Your task to perform on an android device: open wifi settings Image 0: 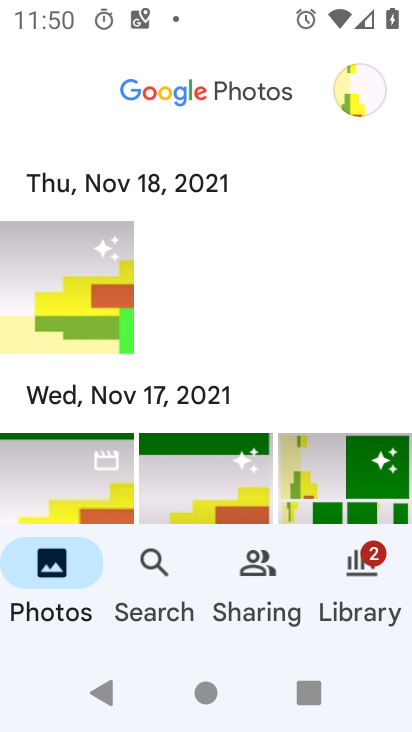
Step 0: press home button
Your task to perform on an android device: open wifi settings Image 1: 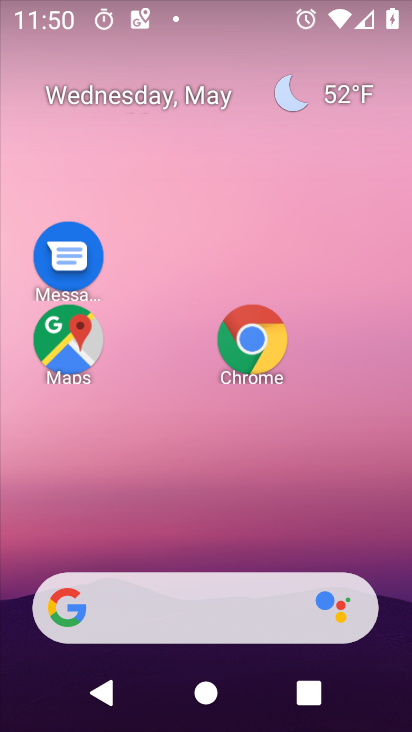
Step 1: drag from (188, 533) to (196, 57)
Your task to perform on an android device: open wifi settings Image 2: 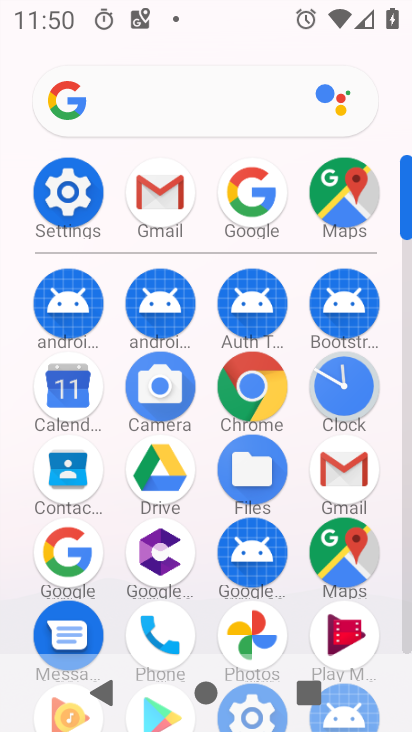
Step 2: click (73, 195)
Your task to perform on an android device: open wifi settings Image 3: 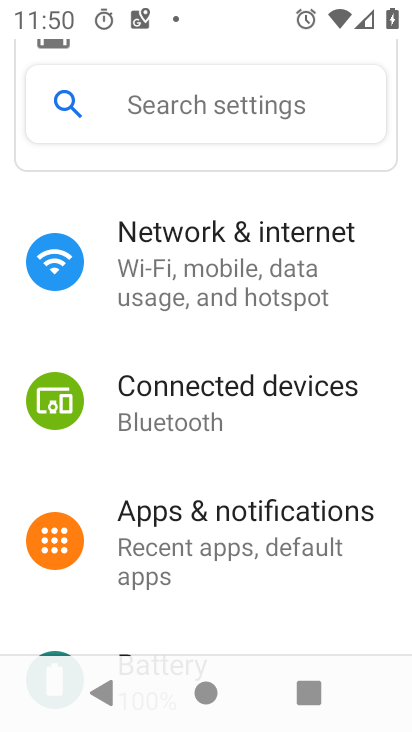
Step 3: click (179, 224)
Your task to perform on an android device: open wifi settings Image 4: 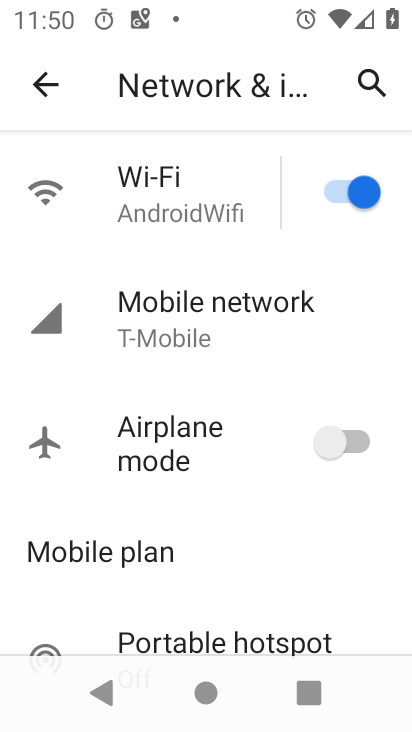
Step 4: click (165, 192)
Your task to perform on an android device: open wifi settings Image 5: 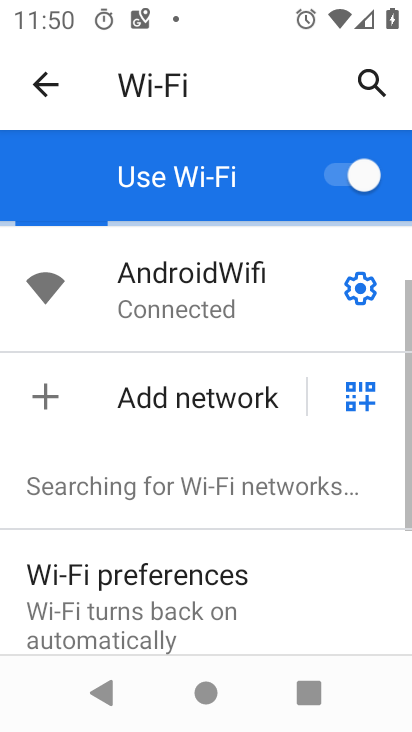
Step 5: click (353, 292)
Your task to perform on an android device: open wifi settings Image 6: 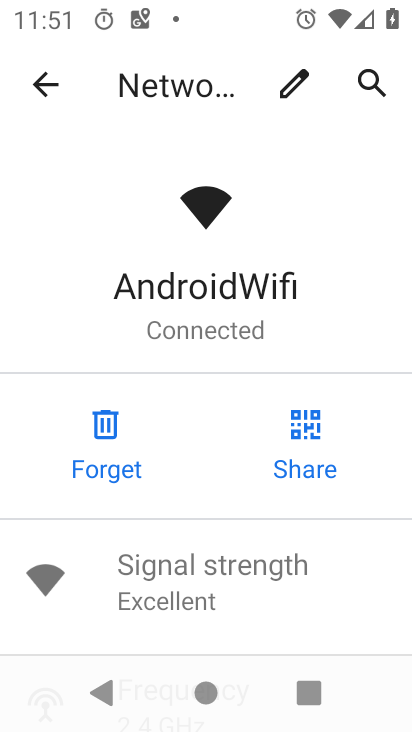
Step 6: task complete